Your task to perform on an android device: Open calendar and show me the third week of next month Image 0: 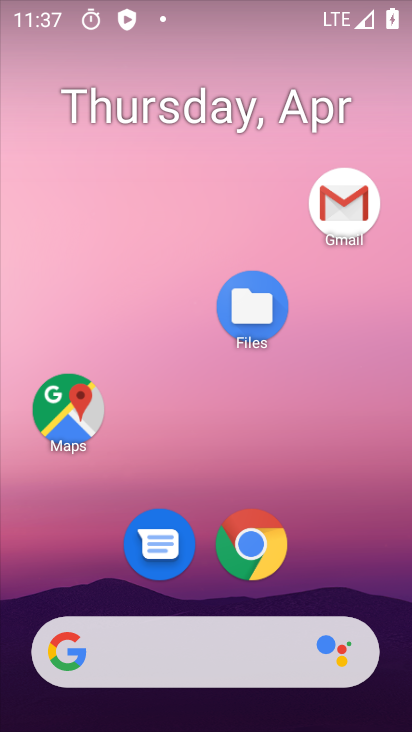
Step 0: drag from (252, 461) to (240, 106)
Your task to perform on an android device: Open calendar and show me the third week of next month Image 1: 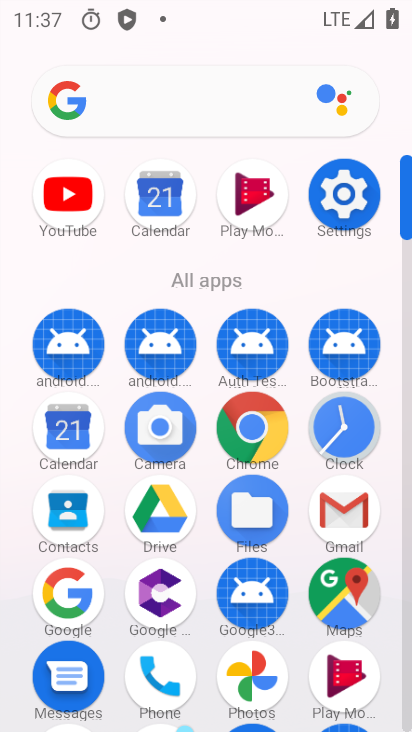
Step 1: click (77, 430)
Your task to perform on an android device: Open calendar and show me the third week of next month Image 2: 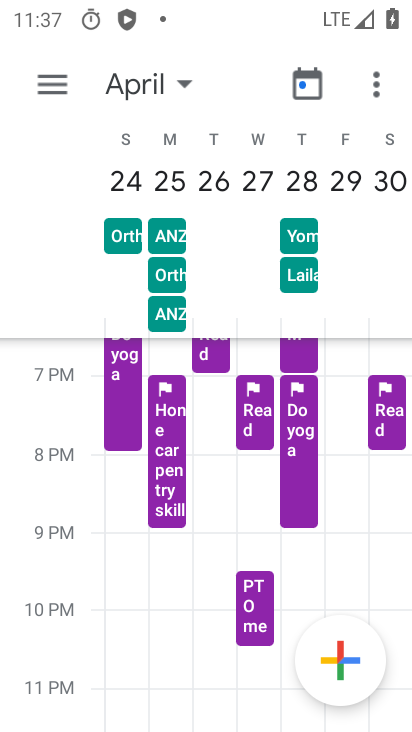
Step 2: click (150, 85)
Your task to perform on an android device: Open calendar and show me the third week of next month Image 3: 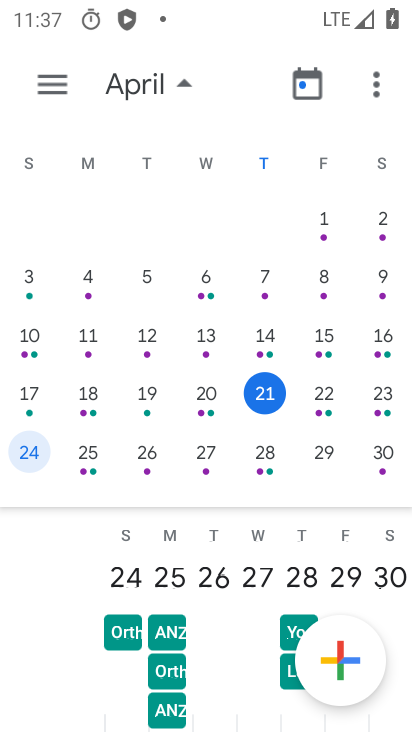
Step 3: drag from (283, 347) to (0, 316)
Your task to perform on an android device: Open calendar and show me the third week of next month Image 4: 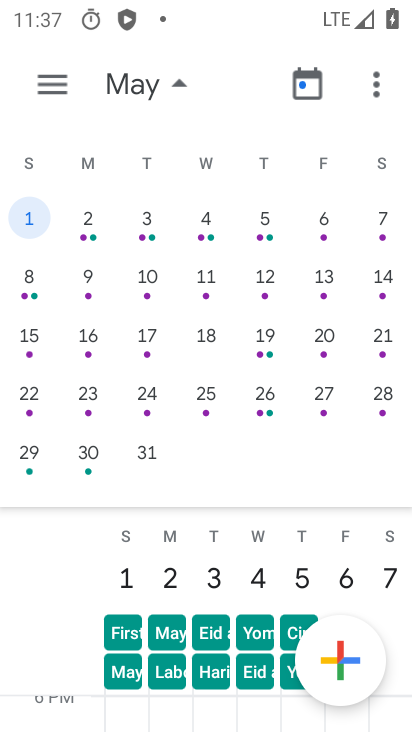
Step 4: click (32, 338)
Your task to perform on an android device: Open calendar and show me the third week of next month Image 5: 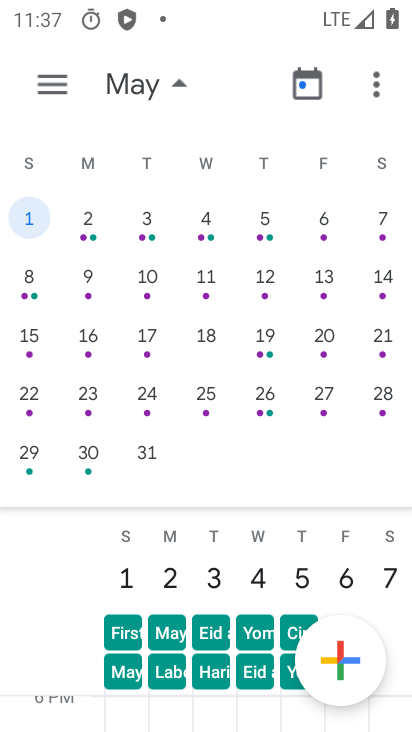
Step 5: click (28, 332)
Your task to perform on an android device: Open calendar and show me the third week of next month Image 6: 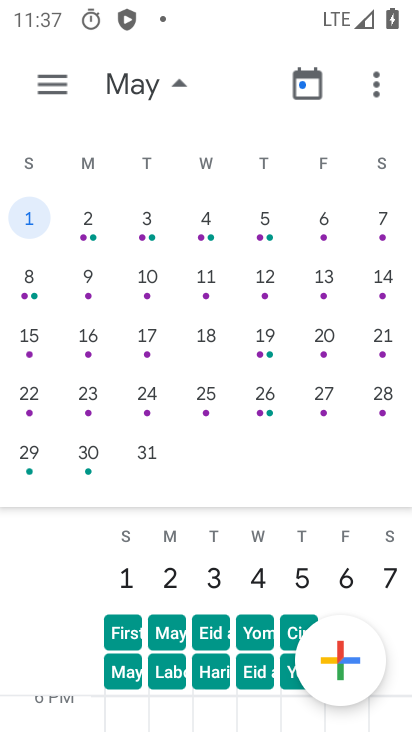
Step 6: click (34, 337)
Your task to perform on an android device: Open calendar and show me the third week of next month Image 7: 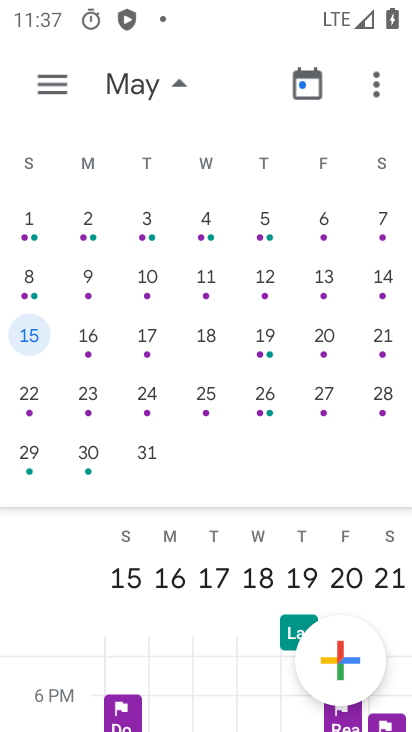
Step 7: click (137, 77)
Your task to perform on an android device: Open calendar and show me the third week of next month Image 8: 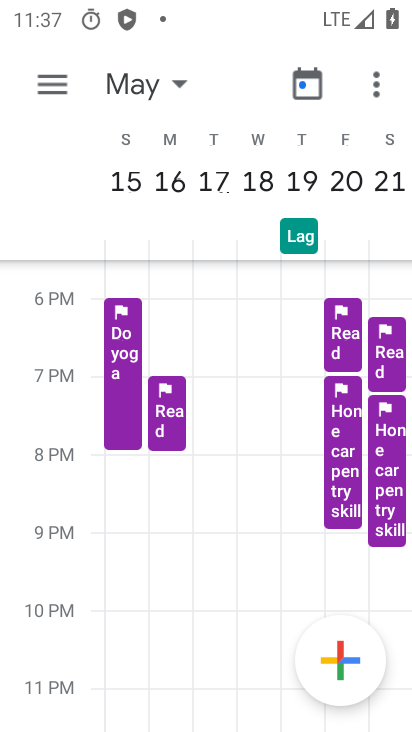
Step 8: task complete